Your task to perform on an android device: make emails show in primary in the gmail app Image 0: 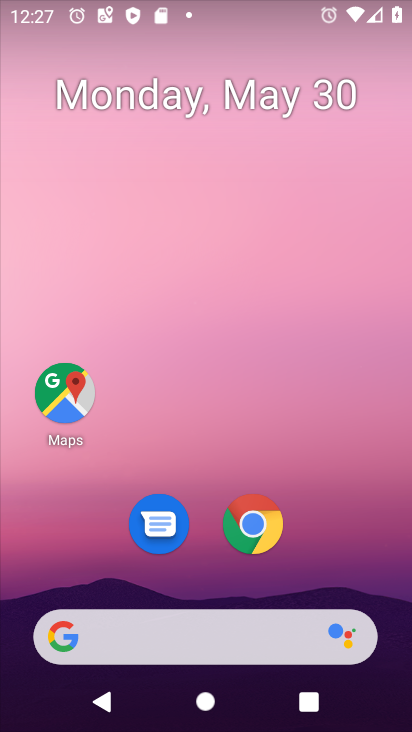
Step 0: drag from (318, 531) to (302, 3)
Your task to perform on an android device: make emails show in primary in the gmail app Image 1: 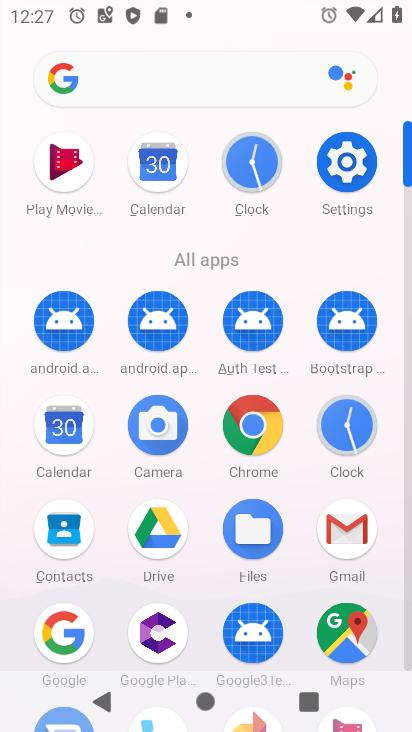
Step 1: click (346, 521)
Your task to perform on an android device: make emails show in primary in the gmail app Image 2: 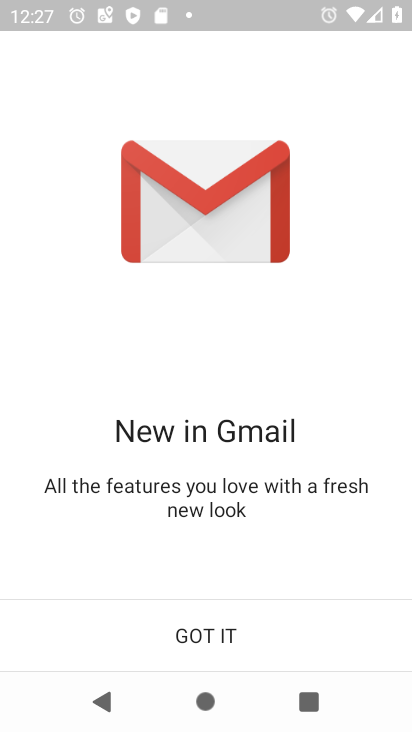
Step 2: click (254, 625)
Your task to perform on an android device: make emails show in primary in the gmail app Image 3: 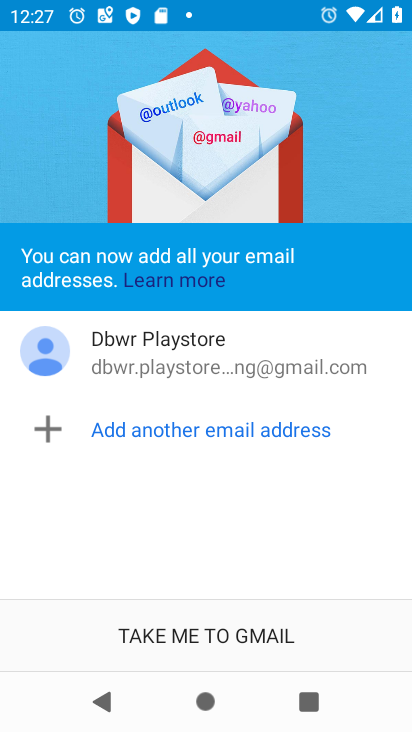
Step 3: click (254, 623)
Your task to perform on an android device: make emails show in primary in the gmail app Image 4: 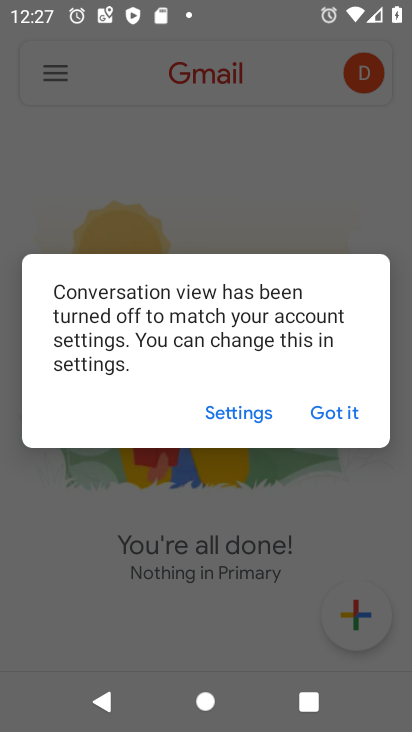
Step 4: click (334, 403)
Your task to perform on an android device: make emails show in primary in the gmail app Image 5: 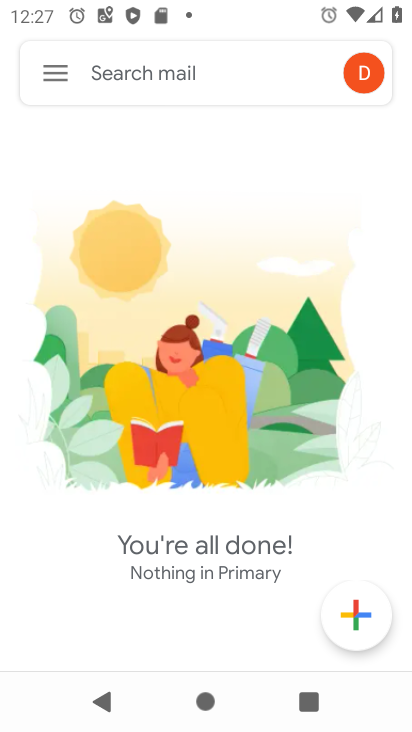
Step 5: click (60, 67)
Your task to perform on an android device: make emails show in primary in the gmail app Image 6: 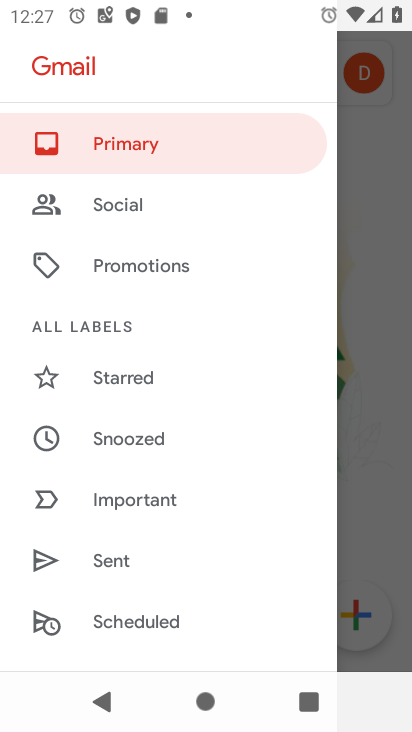
Step 6: drag from (151, 560) to (227, 63)
Your task to perform on an android device: make emails show in primary in the gmail app Image 7: 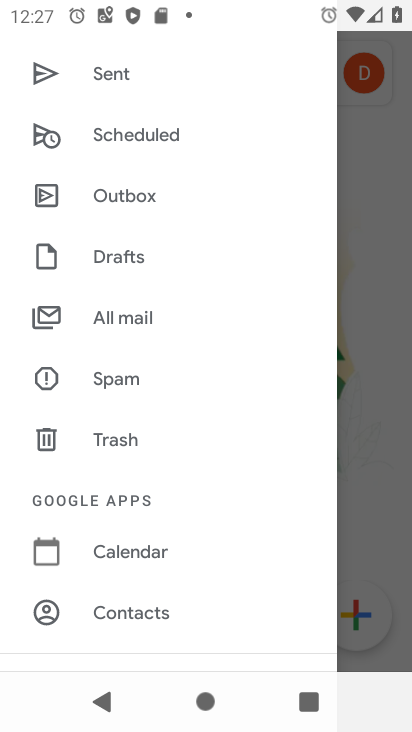
Step 7: drag from (177, 543) to (184, 221)
Your task to perform on an android device: make emails show in primary in the gmail app Image 8: 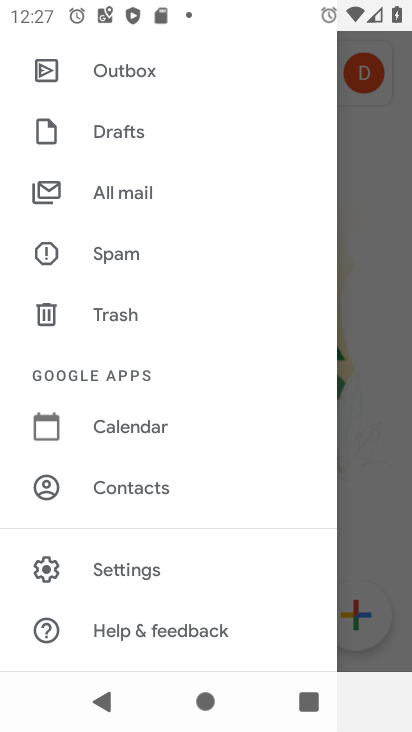
Step 8: click (121, 561)
Your task to perform on an android device: make emails show in primary in the gmail app Image 9: 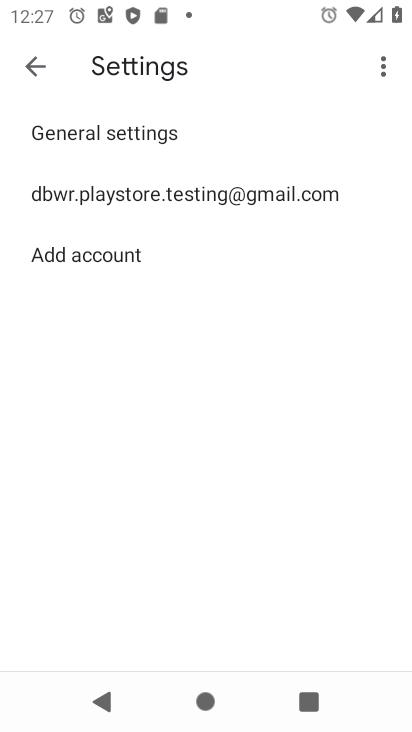
Step 9: click (240, 190)
Your task to perform on an android device: make emails show in primary in the gmail app Image 10: 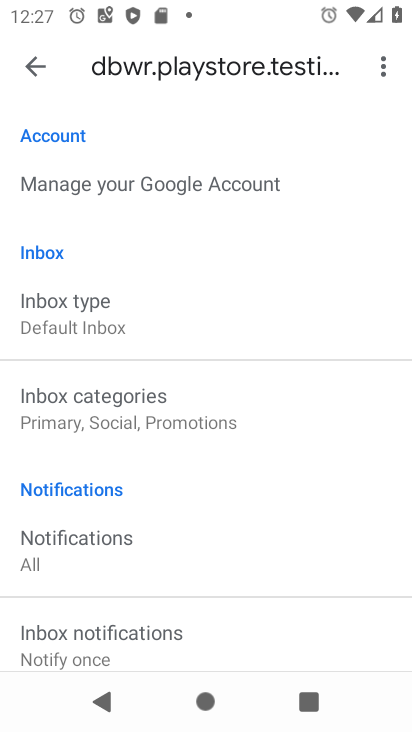
Step 10: click (88, 405)
Your task to perform on an android device: make emails show in primary in the gmail app Image 11: 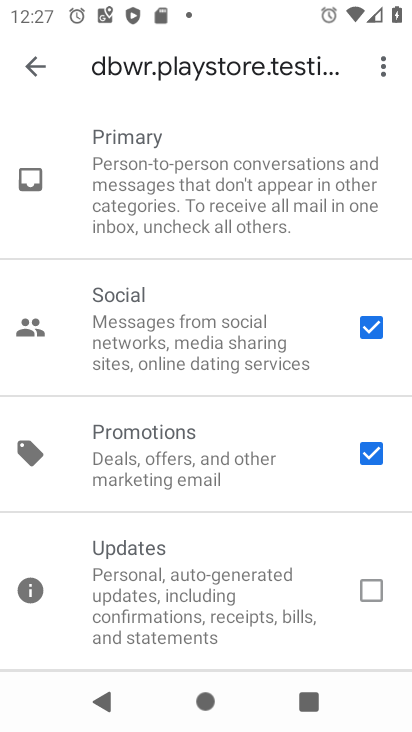
Step 11: click (359, 319)
Your task to perform on an android device: make emails show in primary in the gmail app Image 12: 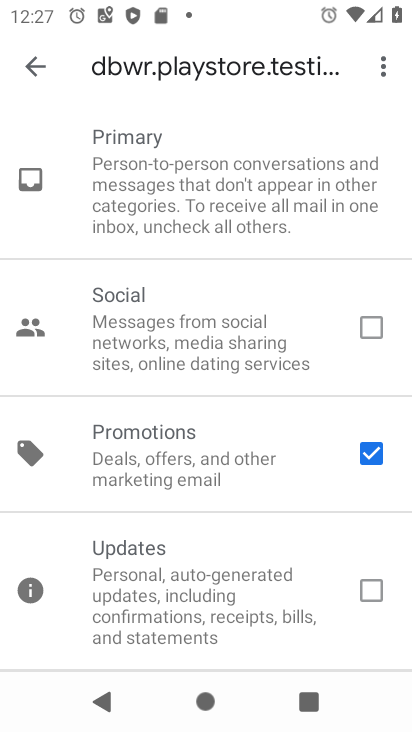
Step 12: click (365, 453)
Your task to perform on an android device: make emails show in primary in the gmail app Image 13: 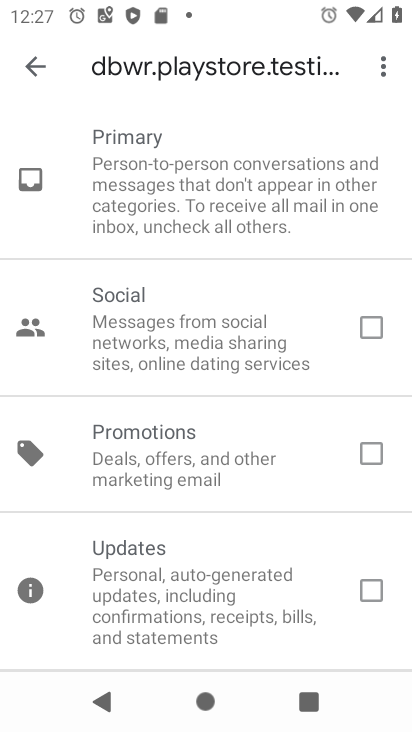
Step 13: task complete